Your task to perform on an android device: change text size in settings app Image 0: 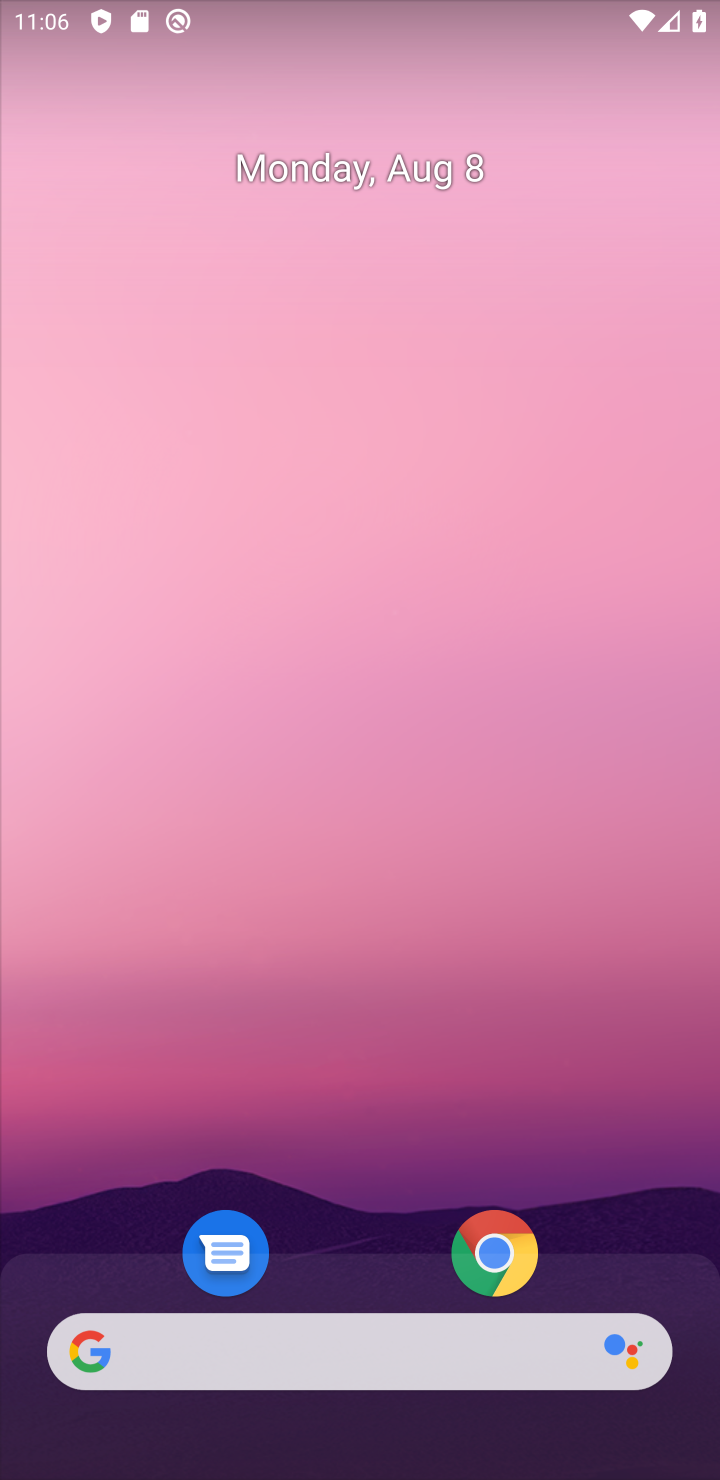
Step 0: drag from (329, 1248) to (473, 327)
Your task to perform on an android device: change text size in settings app Image 1: 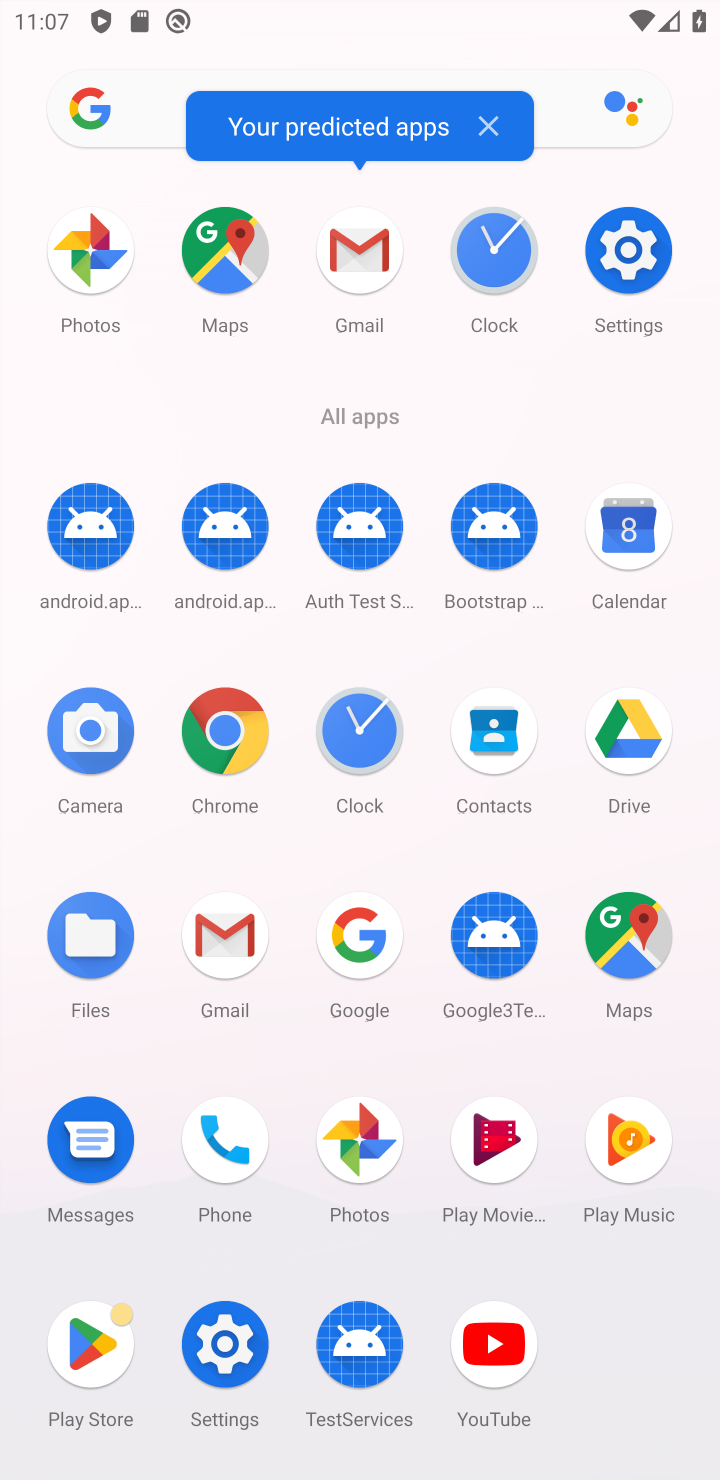
Step 1: click (630, 257)
Your task to perform on an android device: change text size in settings app Image 2: 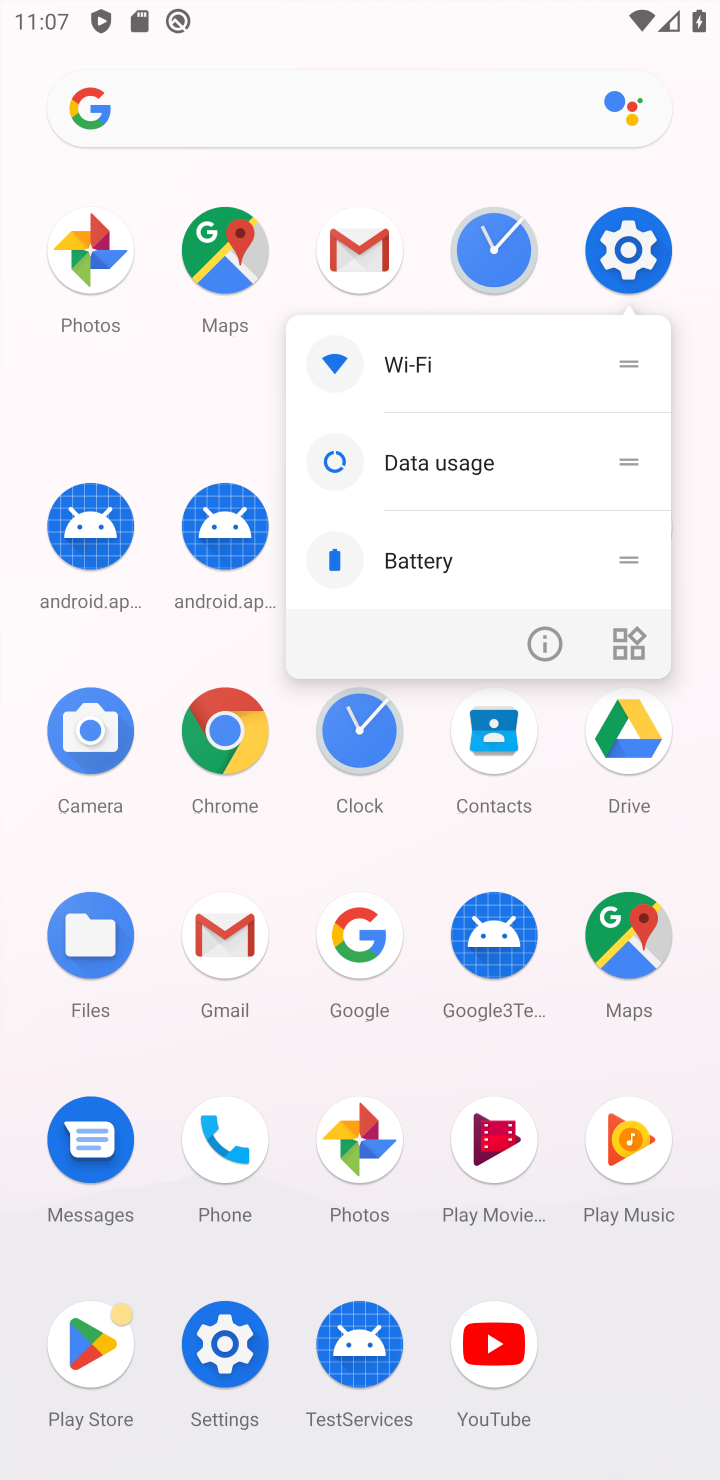
Step 2: click (614, 247)
Your task to perform on an android device: change text size in settings app Image 3: 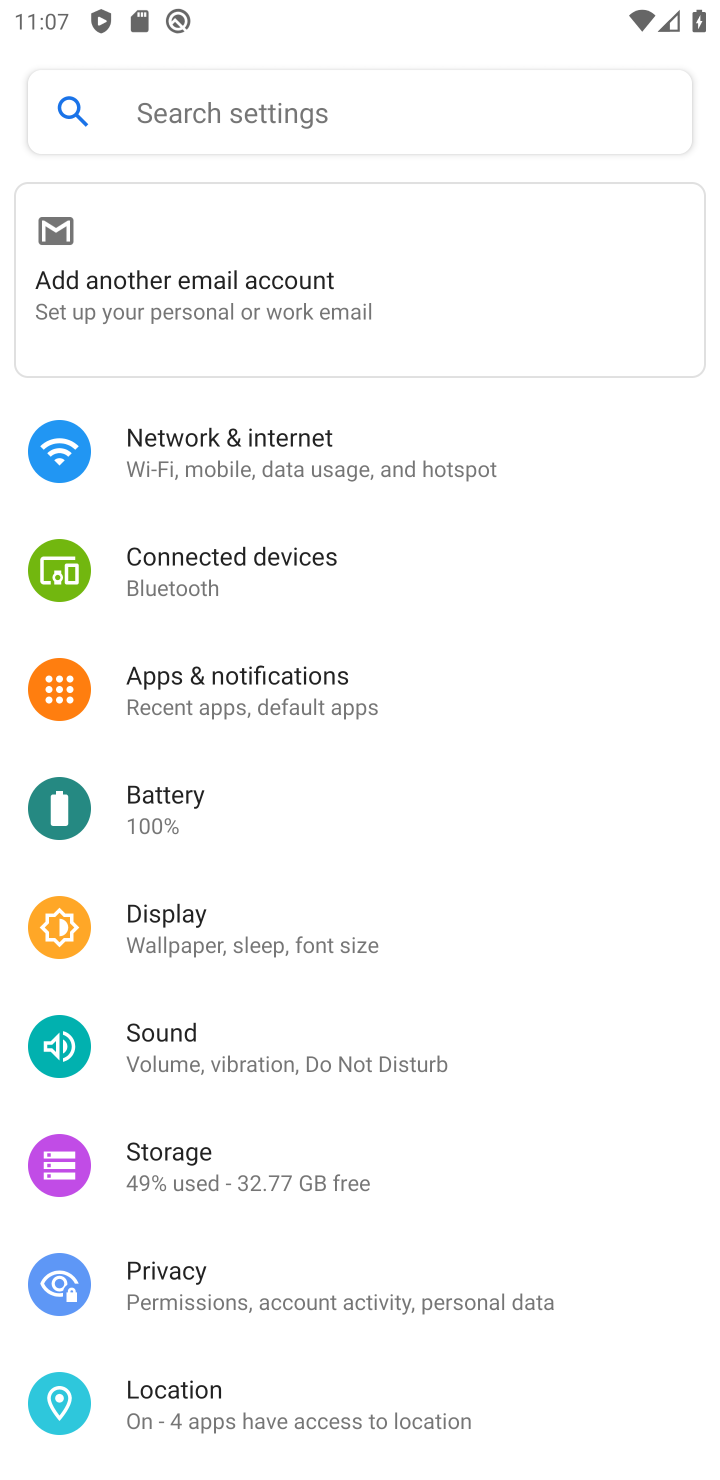
Step 3: drag from (246, 1296) to (341, 620)
Your task to perform on an android device: change text size in settings app Image 4: 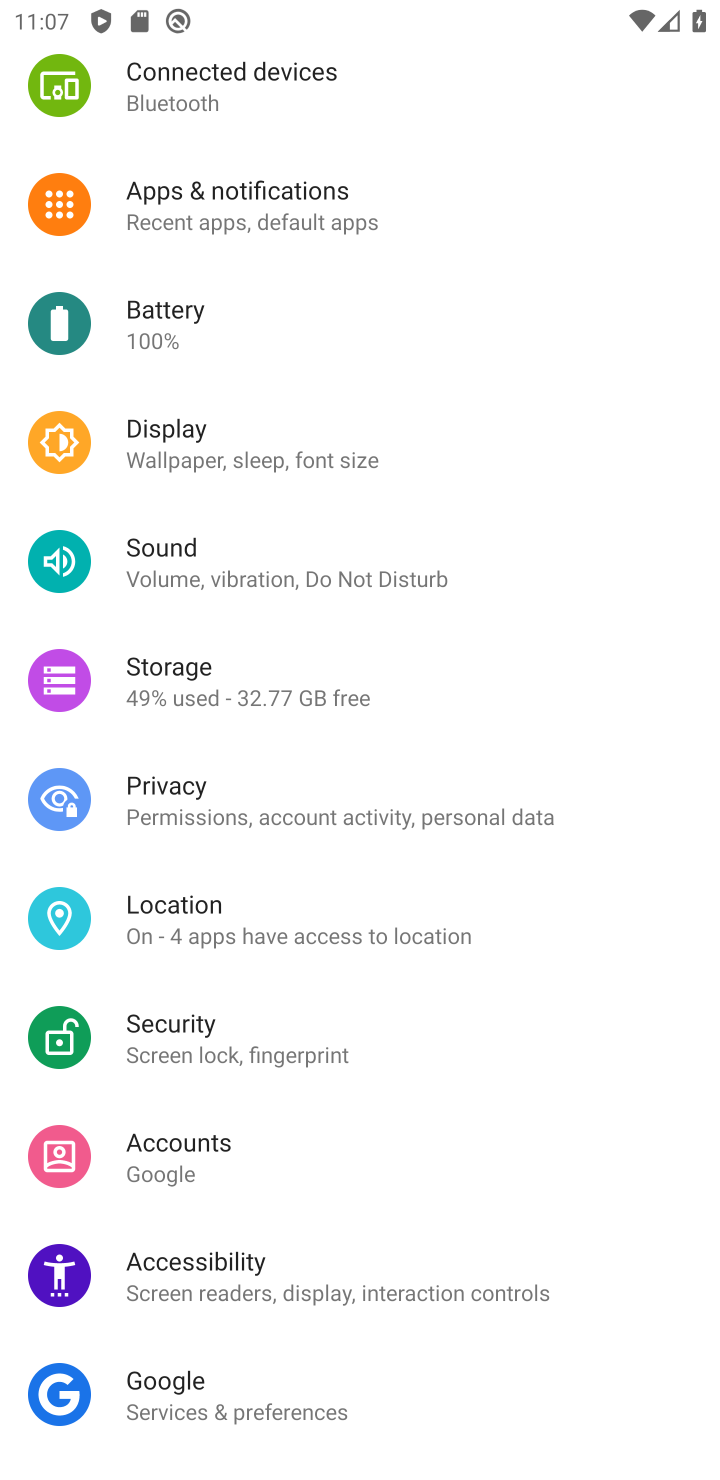
Step 4: click (255, 1312)
Your task to perform on an android device: change text size in settings app Image 5: 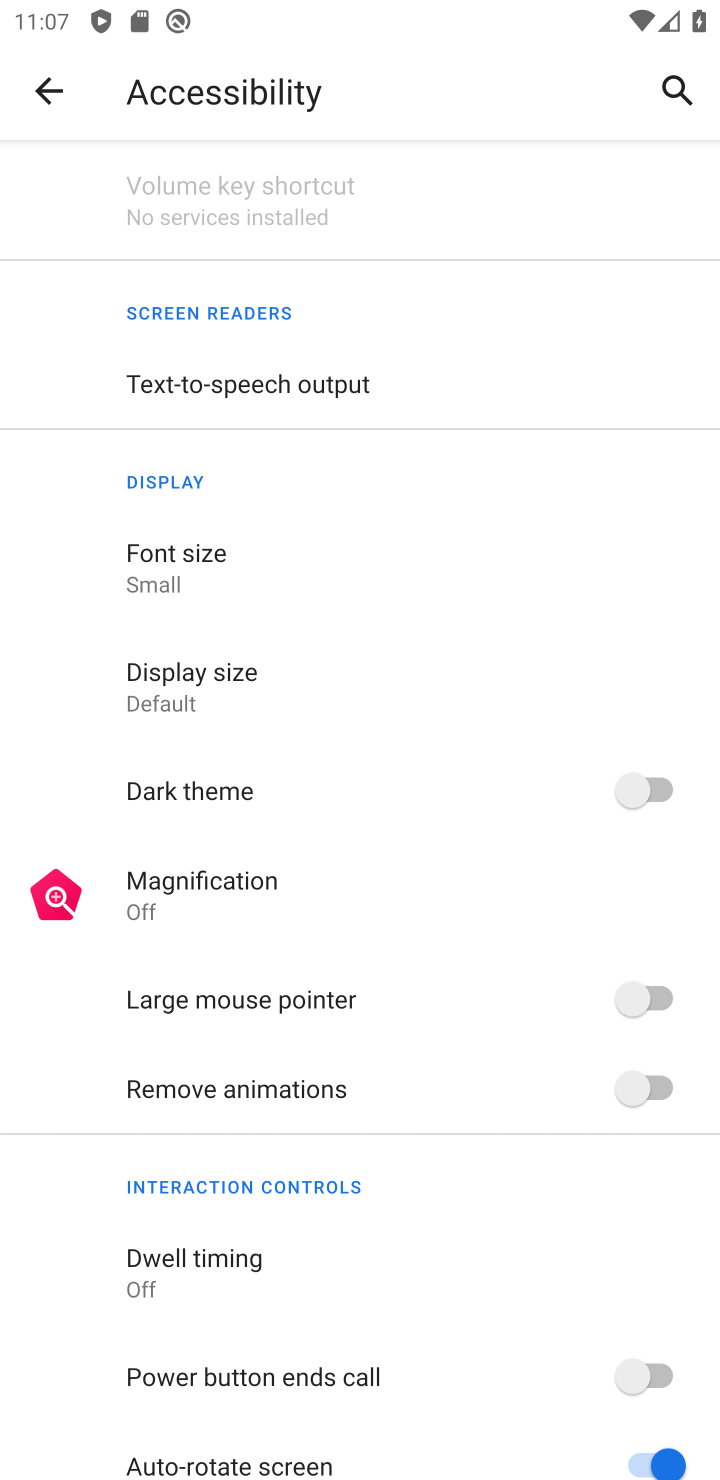
Step 5: click (214, 562)
Your task to perform on an android device: change text size in settings app Image 6: 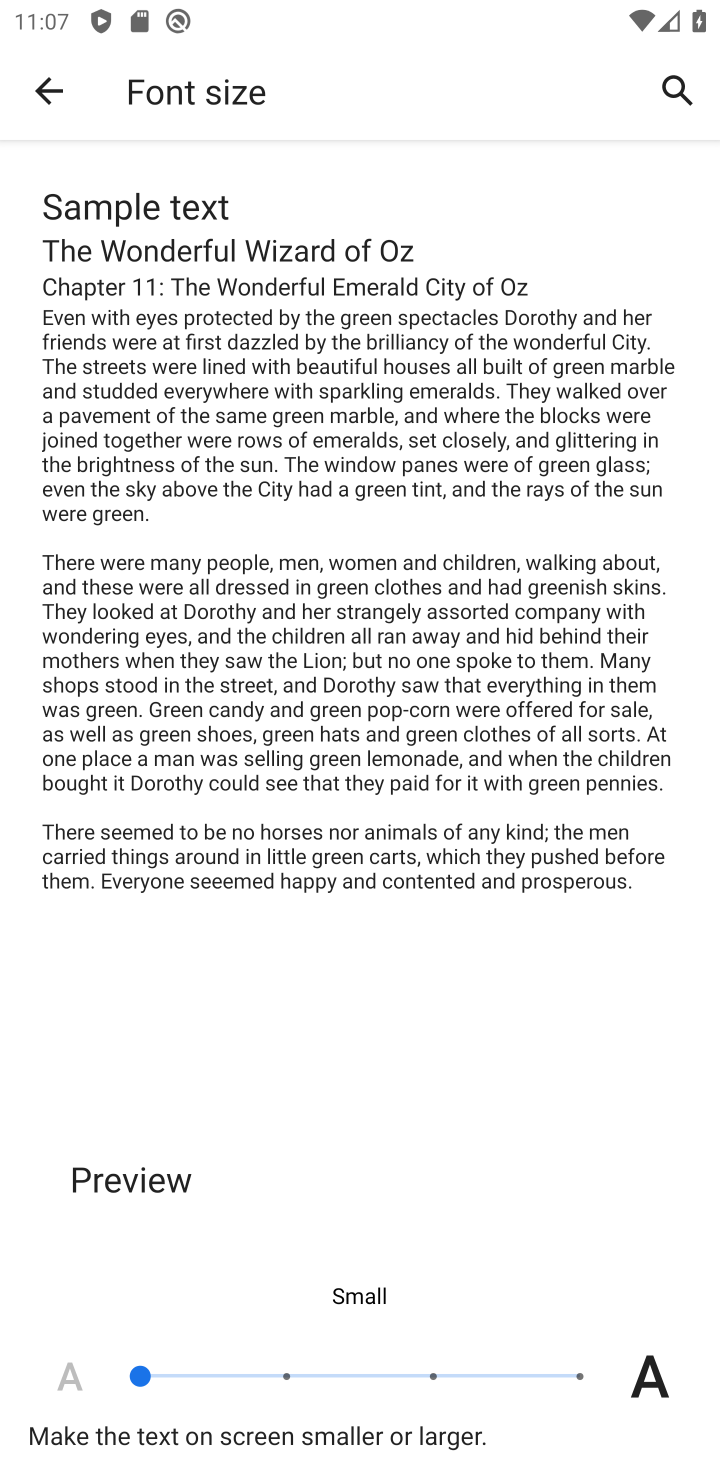
Step 6: click (409, 1376)
Your task to perform on an android device: change text size in settings app Image 7: 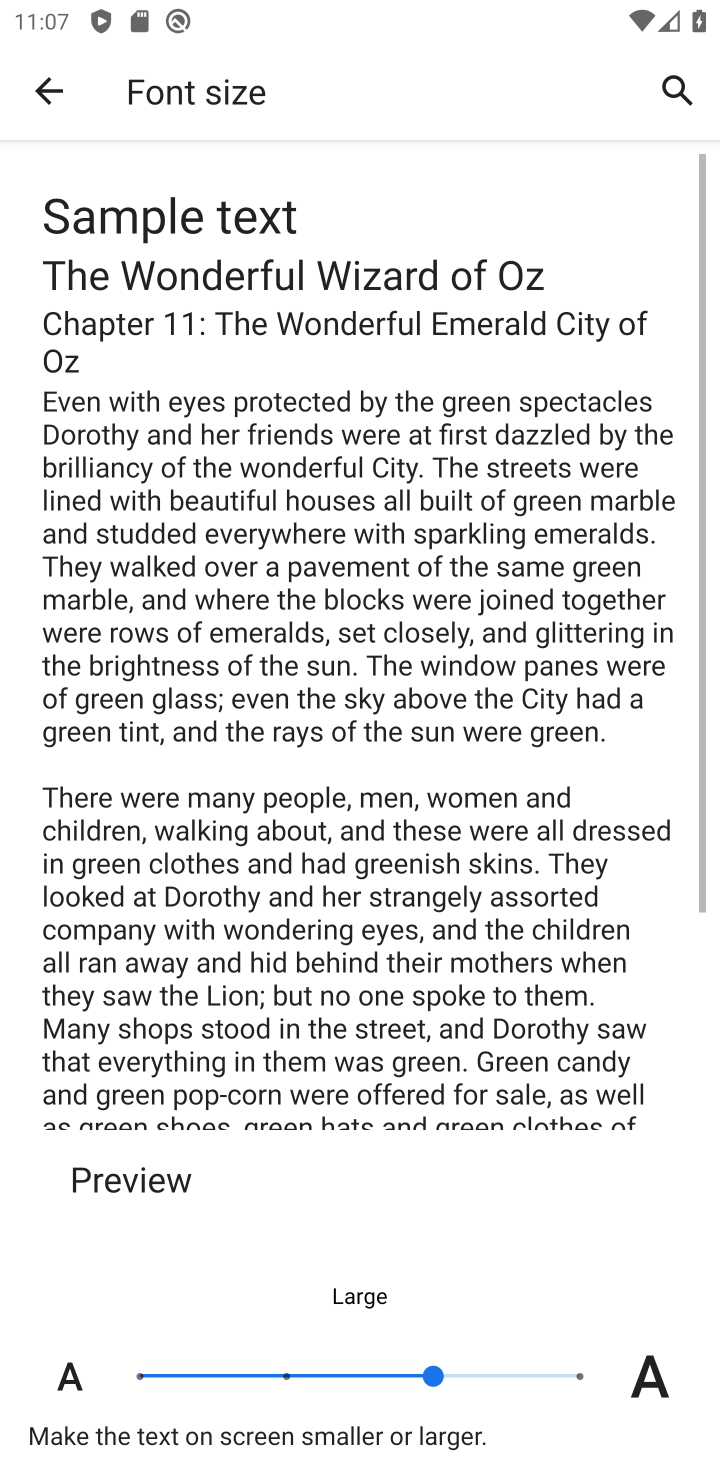
Step 7: task complete